Your task to perform on an android device: turn on priority inbox in the gmail app Image 0: 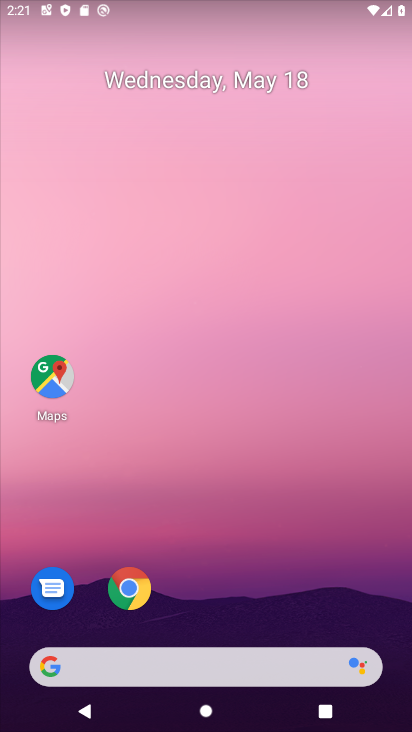
Step 0: drag from (355, 574) to (361, 166)
Your task to perform on an android device: turn on priority inbox in the gmail app Image 1: 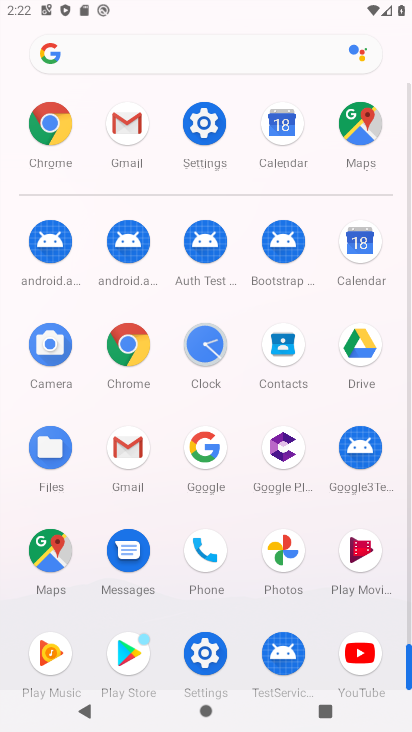
Step 1: click (128, 448)
Your task to perform on an android device: turn on priority inbox in the gmail app Image 2: 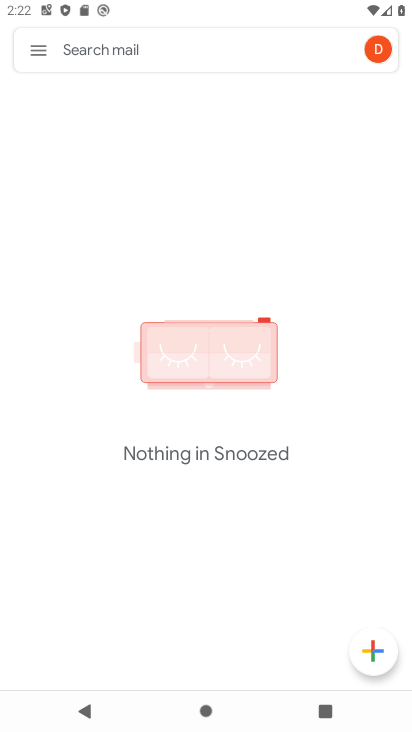
Step 2: click (37, 55)
Your task to perform on an android device: turn on priority inbox in the gmail app Image 3: 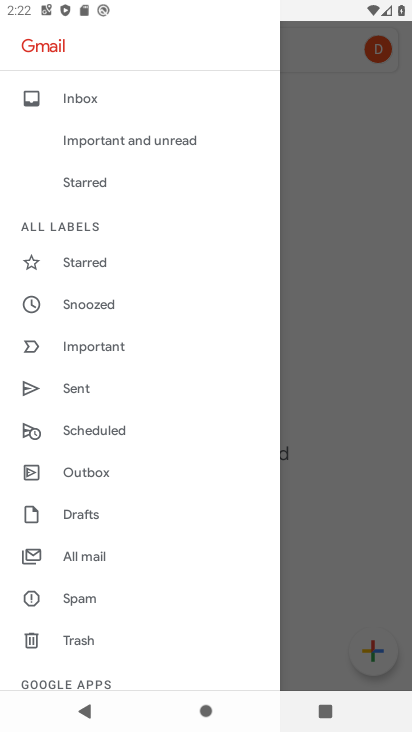
Step 3: drag from (179, 593) to (174, 408)
Your task to perform on an android device: turn on priority inbox in the gmail app Image 4: 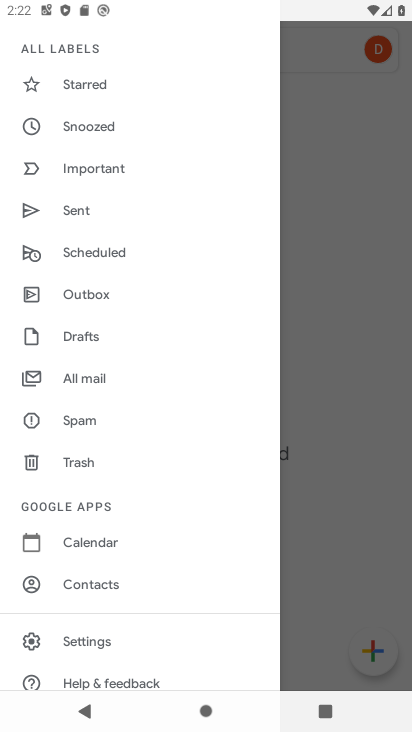
Step 4: drag from (165, 625) to (174, 413)
Your task to perform on an android device: turn on priority inbox in the gmail app Image 5: 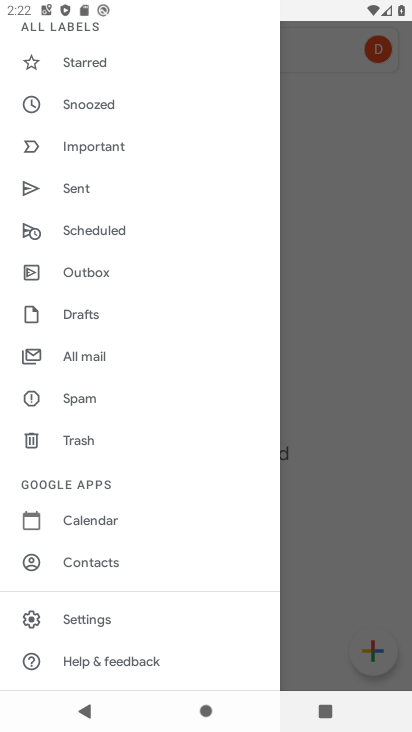
Step 5: drag from (162, 559) to (164, 433)
Your task to perform on an android device: turn on priority inbox in the gmail app Image 6: 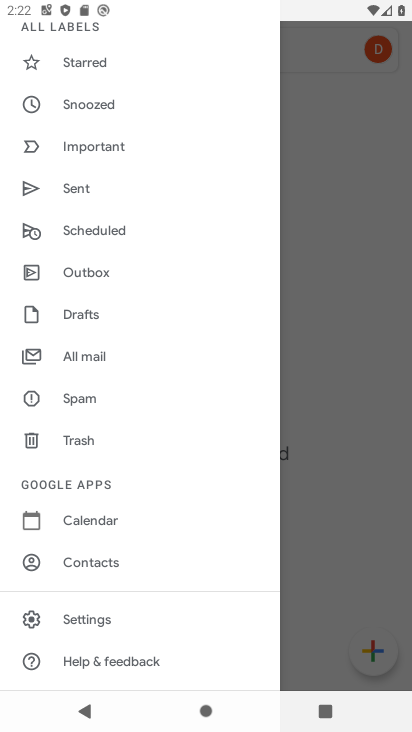
Step 6: click (111, 617)
Your task to perform on an android device: turn on priority inbox in the gmail app Image 7: 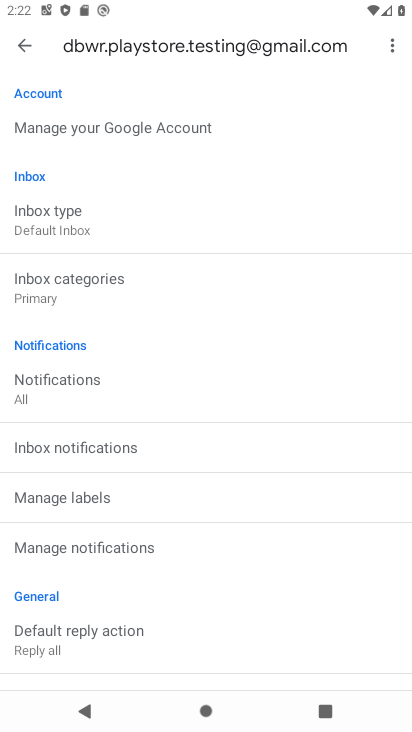
Step 7: drag from (243, 514) to (253, 293)
Your task to perform on an android device: turn on priority inbox in the gmail app Image 8: 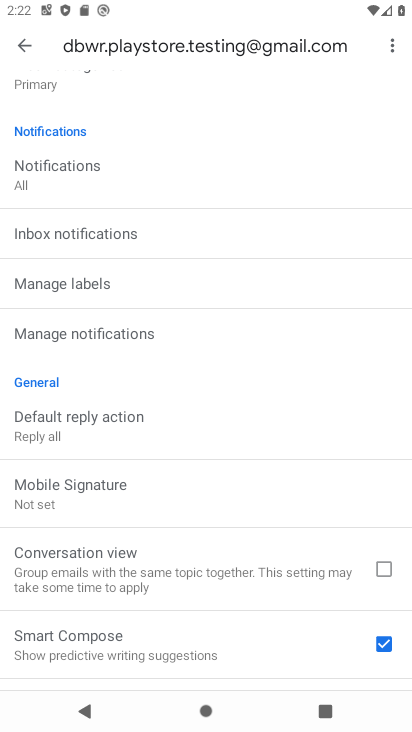
Step 8: drag from (239, 577) to (235, 397)
Your task to perform on an android device: turn on priority inbox in the gmail app Image 9: 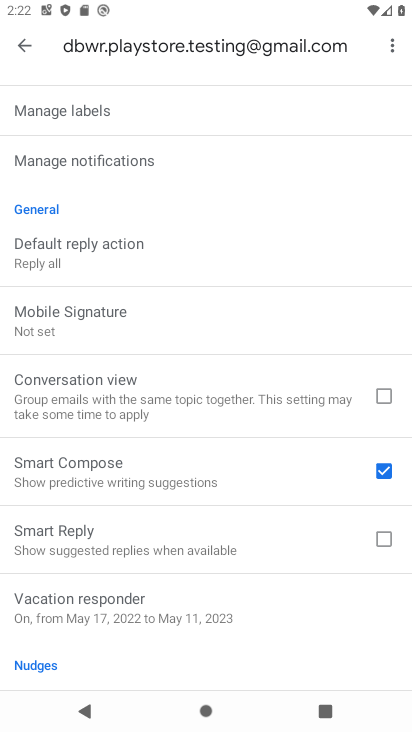
Step 9: drag from (242, 616) to (230, 417)
Your task to perform on an android device: turn on priority inbox in the gmail app Image 10: 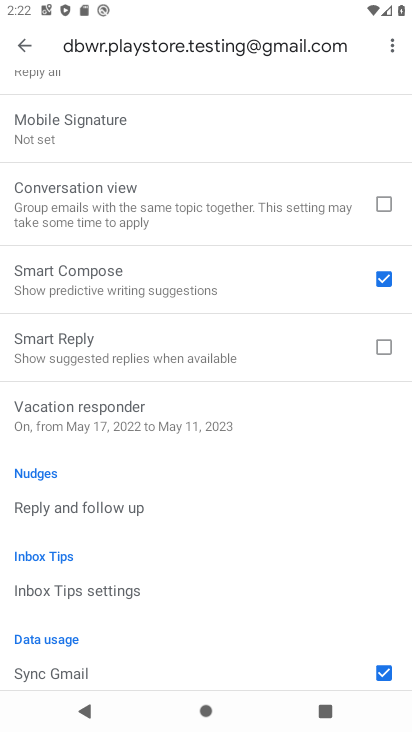
Step 10: drag from (218, 601) to (232, 421)
Your task to perform on an android device: turn on priority inbox in the gmail app Image 11: 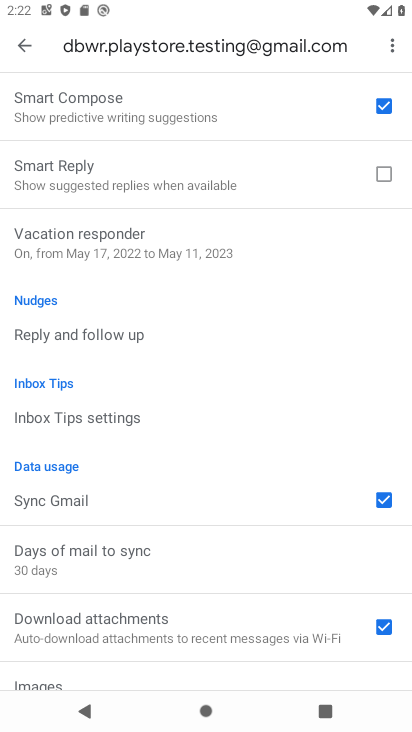
Step 11: drag from (215, 607) to (212, 352)
Your task to perform on an android device: turn on priority inbox in the gmail app Image 12: 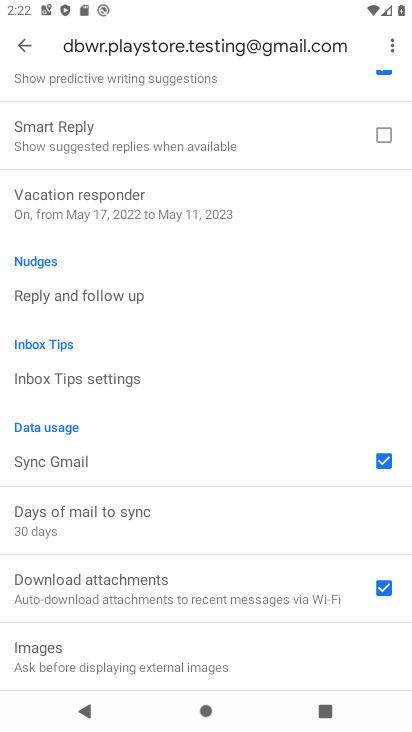
Step 12: drag from (246, 323) to (223, 486)
Your task to perform on an android device: turn on priority inbox in the gmail app Image 13: 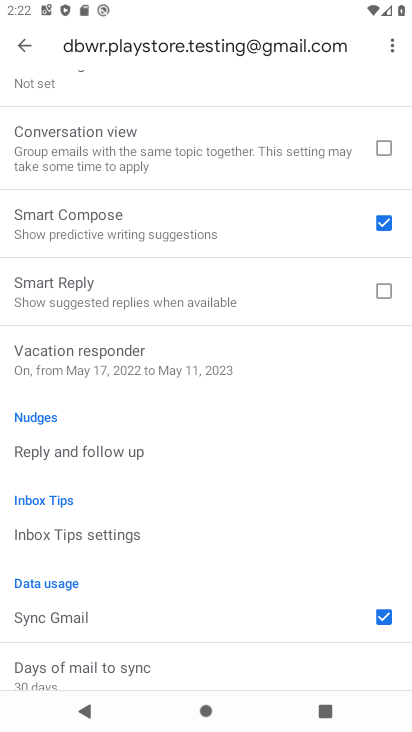
Step 13: drag from (225, 281) to (227, 456)
Your task to perform on an android device: turn on priority inbox in the gmail app Image 14: 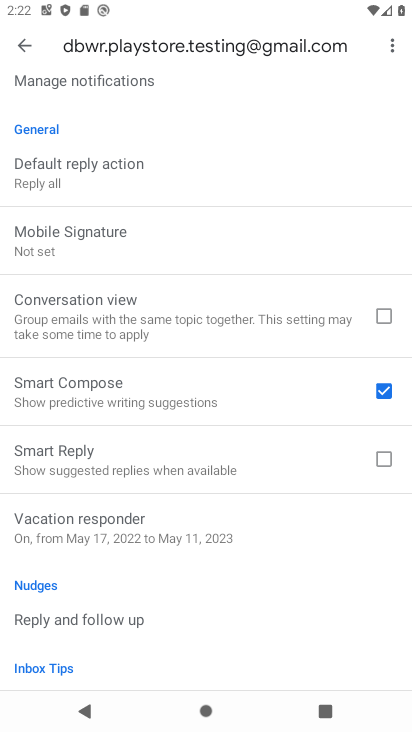
Step 14: drag from (218, 291) to (218, 403)
Your task to perform on an android device: turn on priority inbox in the gmail app Image 15: 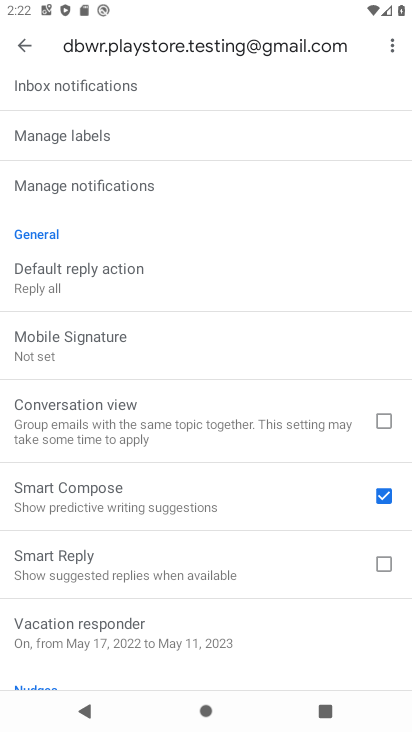
Step 15: drag from (218, 263) to (205, 386)
Your task to perform on an android device: turn on priority inbox in the gmail app Image 16: 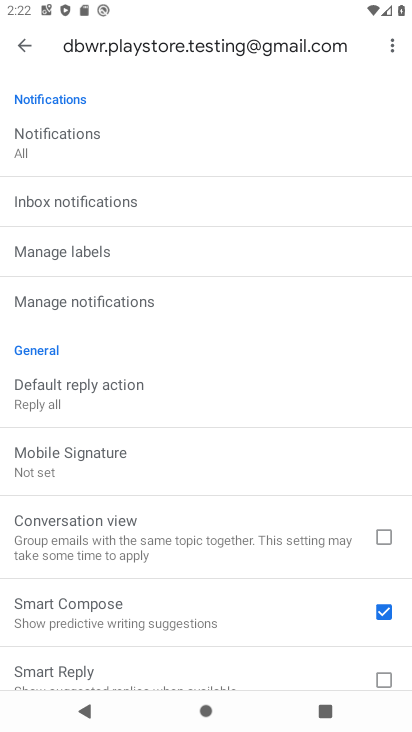
Step 16: drag from (214, 194) to (210, 319)
Your task to perform on an android device: turn on priority inbox in the gmail app Image 17: 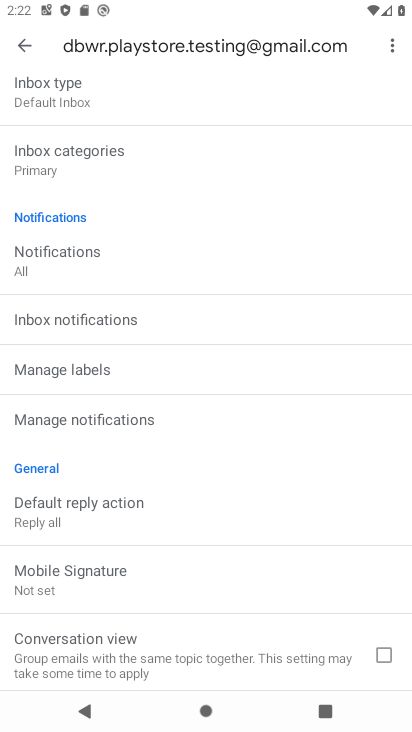
Step 17: drag from (196, 164) to (194, 293)
Your task to perform on an android device: turn on priority inbox in the gmail app Image 18: 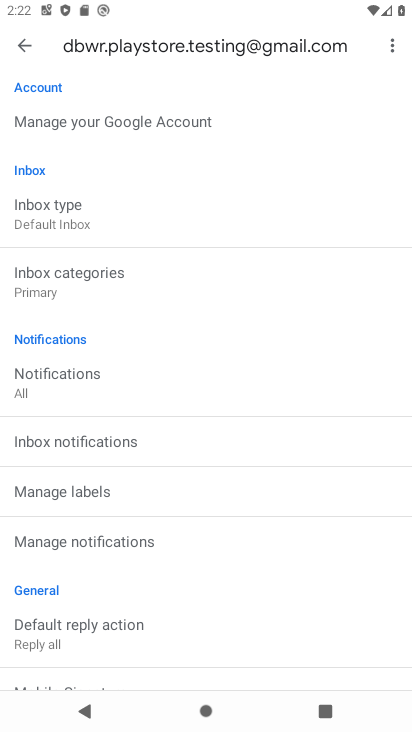
Step 18: drag from (191, 161) to (182, 324)
Your task to perform on an android device: turn on priority inbox in the gmail app Image 19: 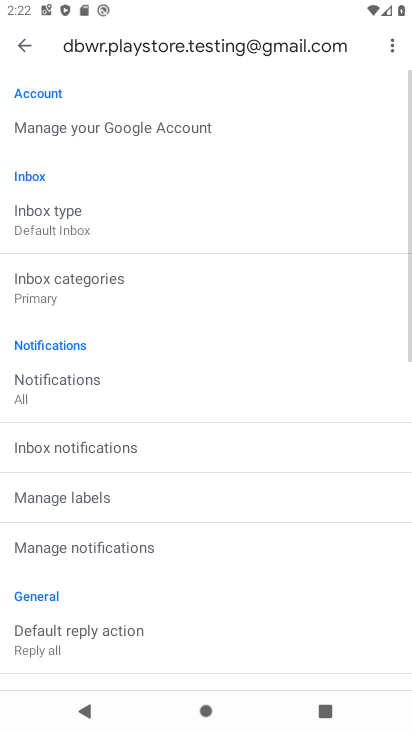
Step 19: click (80, 215)
Your task to perform on an android device: turn on priority inbox in the gmail app Image 20: 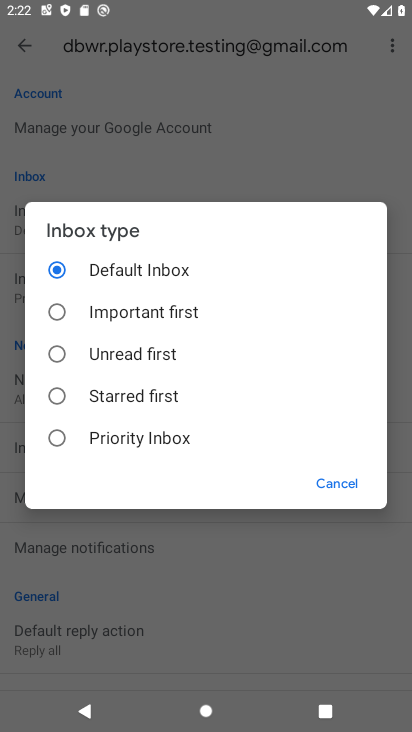
Step 20: click (150, 438)
Your task to perform on an android device: turn on priority inbox in the gmail app Image 21: 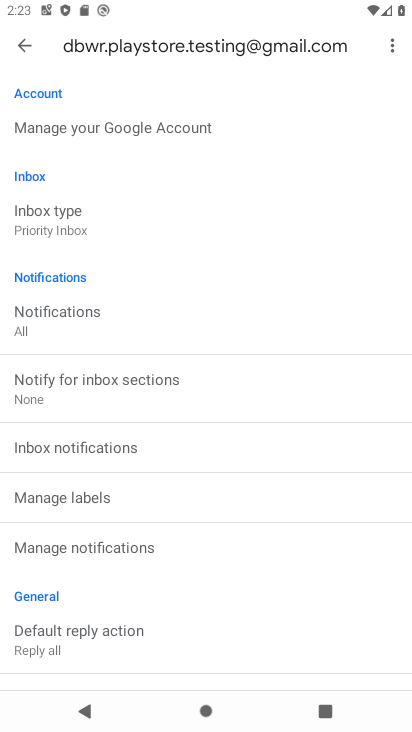
Step 21: task complete